Your task to perform on an android device: choose inbox layout in the gmail app Image 0: 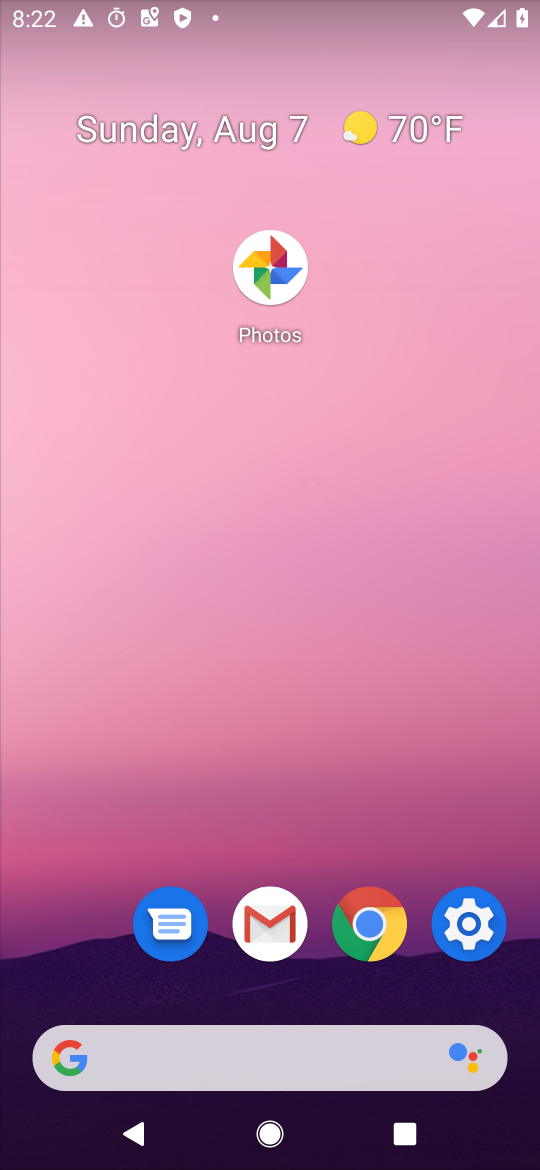
Step 0: drag from (401, 1079) to (343, 331)
Your task to perform on an android device: choose inbox layout in the gmail app Image 1: 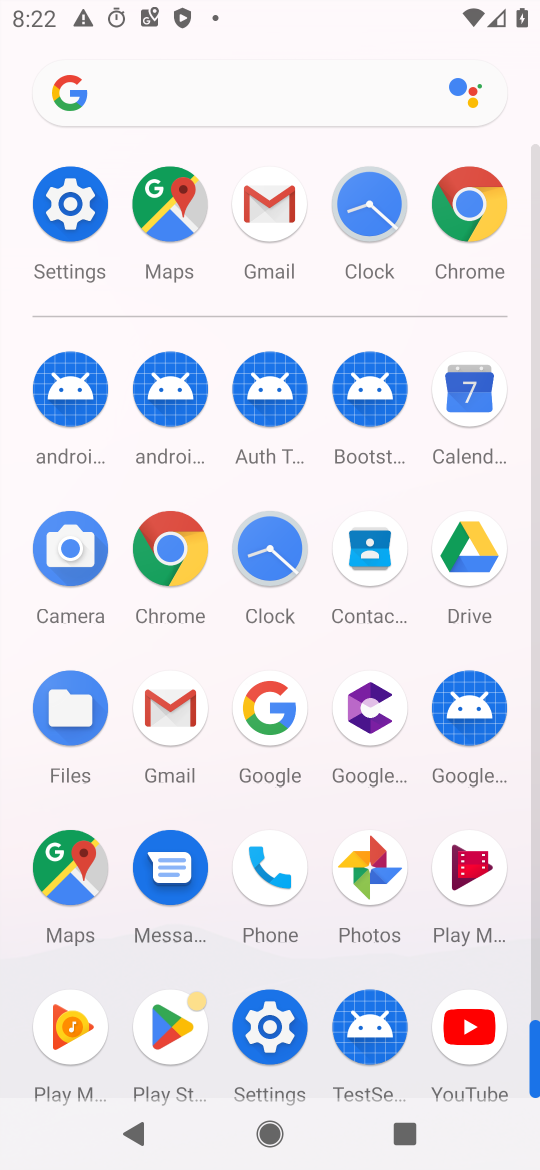
Step 1: click (267, 229)
Your task to perform on an android device: choose inbox layout in the gmail app Image 2: 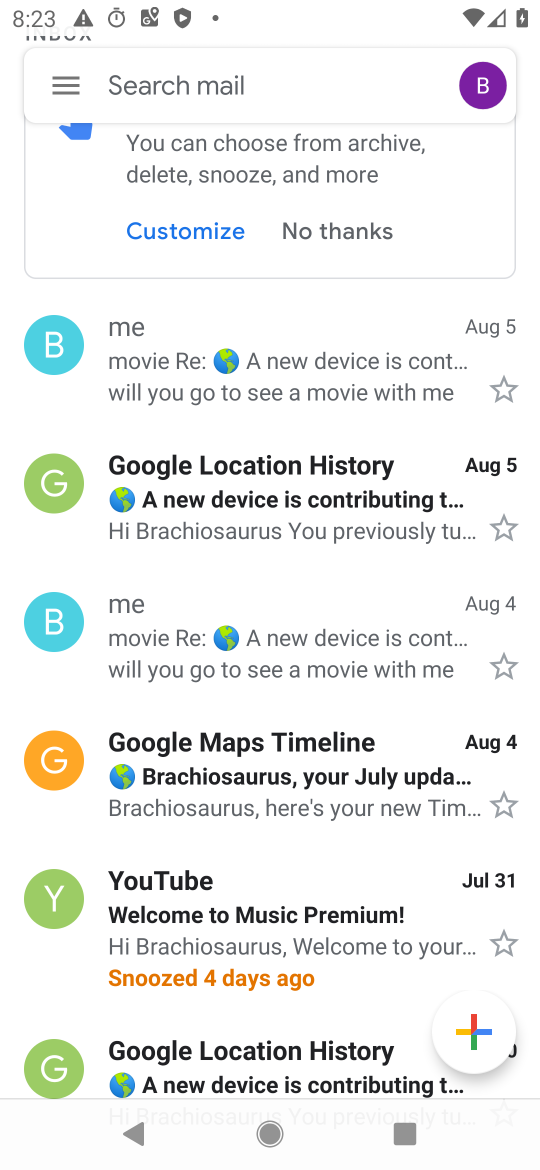
Step 2: click (320, 226)
Your task to perform on an android device: choose inbox layout in the gmail app Image 3: 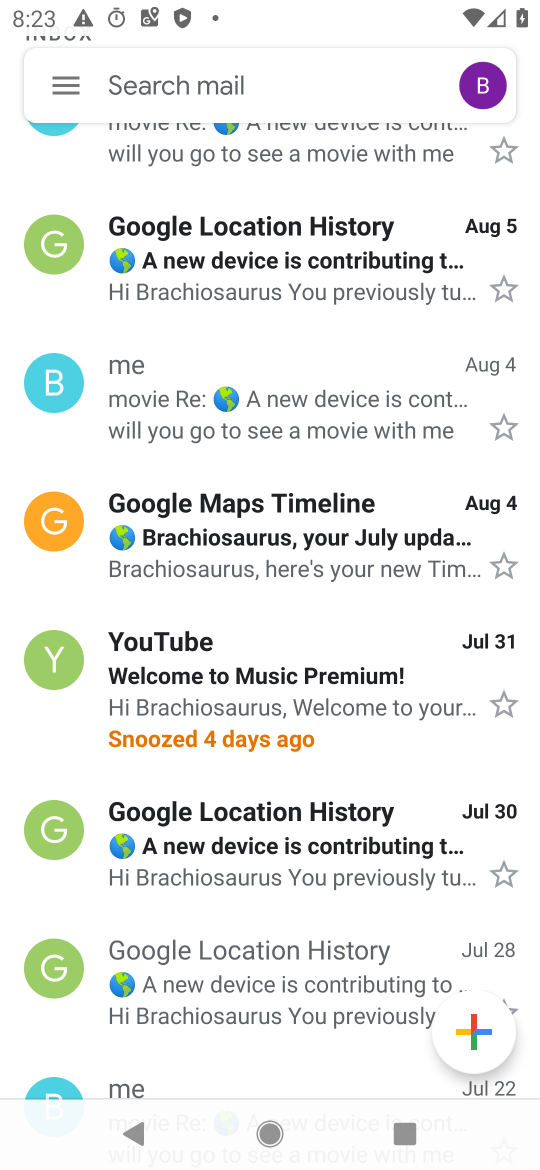
Step 3: click (79, 81)
Your task to perform on an android device: choose inbox layout in the gmail app Image 4: 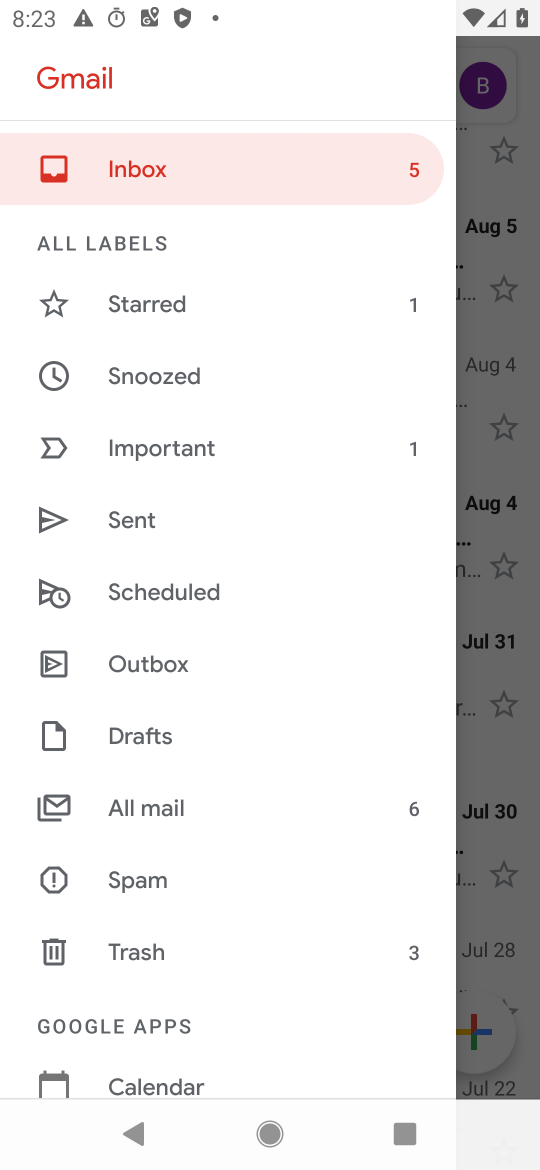
Step 4: drag from (170, 1017) to (155, 739)
Your task to perform on an android device: choose inbox layout in the gmail app Image 5: 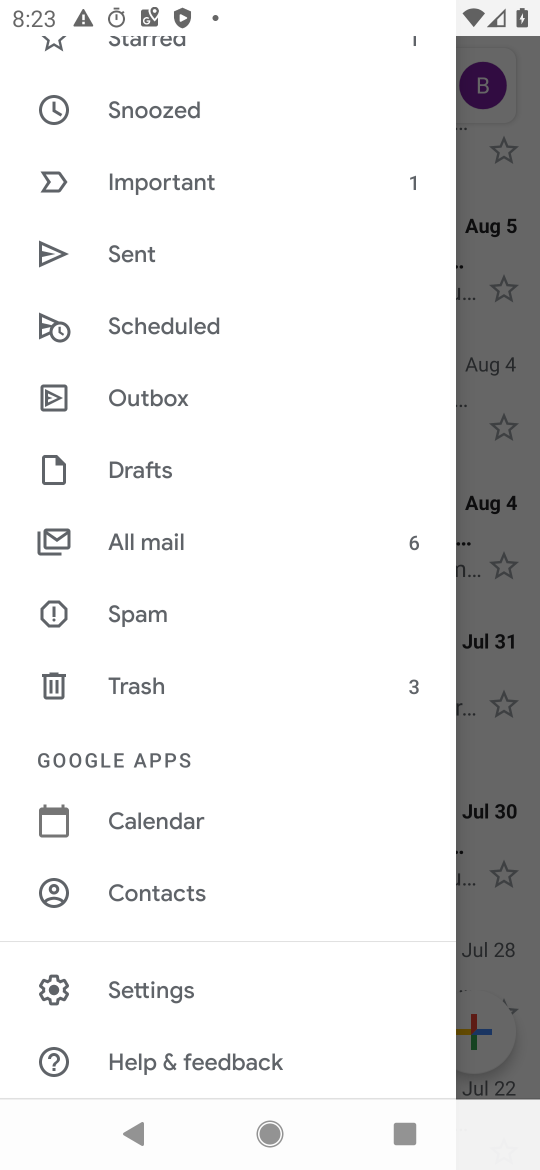
Step 5: click (221, 979)
Your task to perform on an android device: choose inbox layout in the gmail app Image 6: 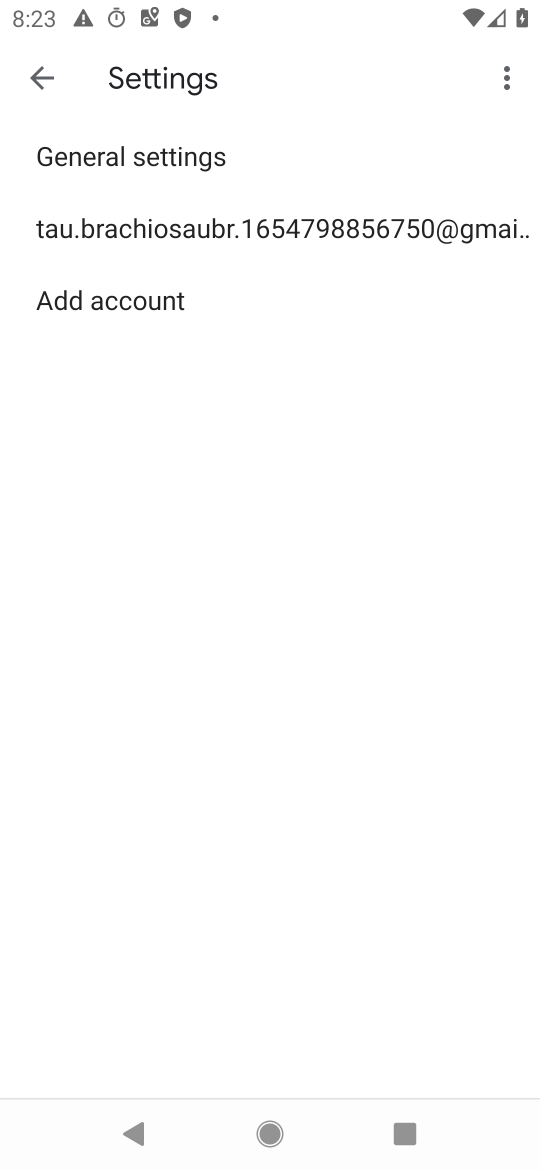
Step 6: click (269, 212)
Your task to perform on an android device: choose inbox layout in the gmail app Image 7: 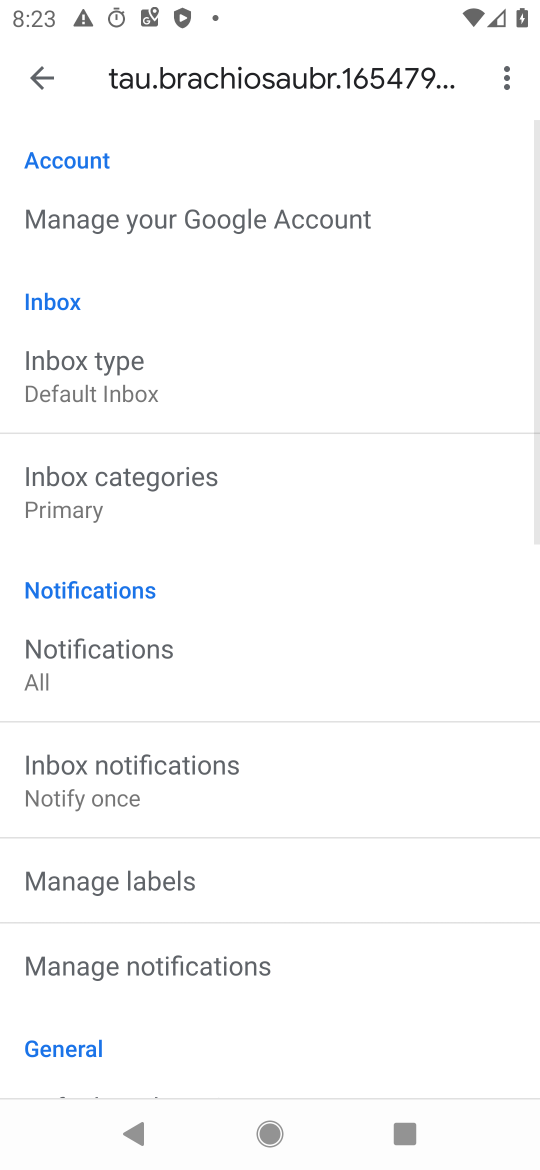
Step 7: task complete